Your task to perform on an android device: turn on javascript in the chrome app Image 0: 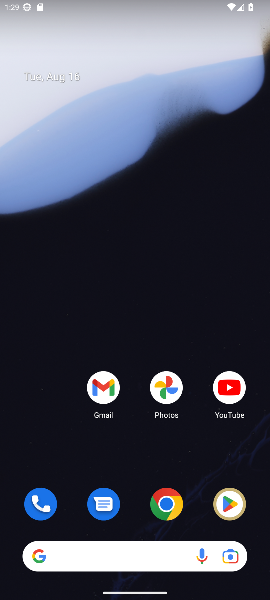
Step 0: click (169, 498)
Your task to perform on an android device: turn on javascript in the chrome app Image 1: 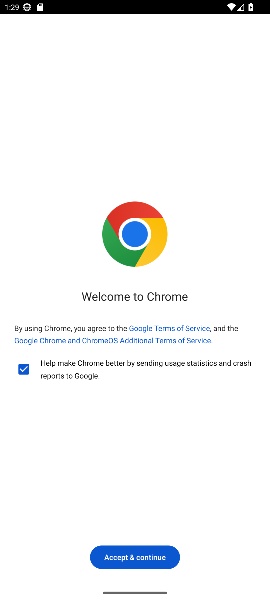
Step 1: click (133, 556)
Your task to perform on an android device: turn on javascript in the chrome app Image 2: 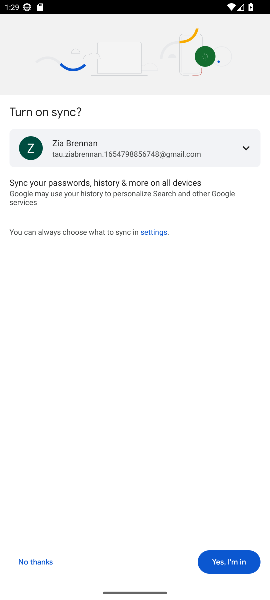
Step 2: click (232, 566)
Your task to perform on an android device: turn on javascript in the chrome app Image 3: 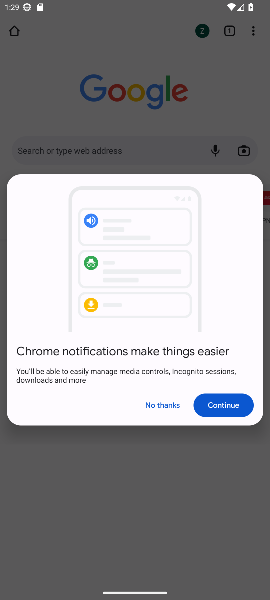
Step 3: click (222, 400)
Your task to perform on an android device: turn on javascript in the chrome app Image 4: 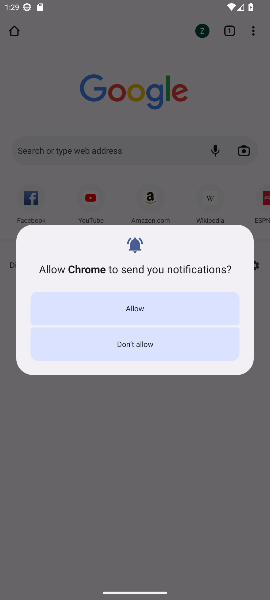
Step 4: click (143, 307)
Your task to perform on an android device: turn on javascript in the chrome app Image 5: 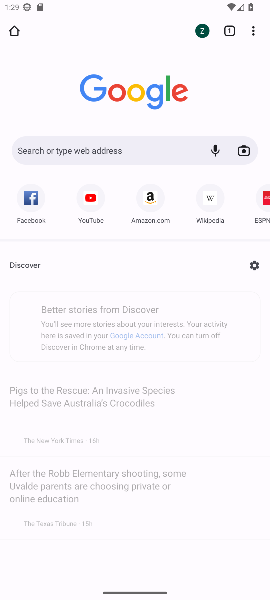
Step 5: click (267, 29)
Your task to perform on an android device: turn on javascript in the chrome app Image 6: 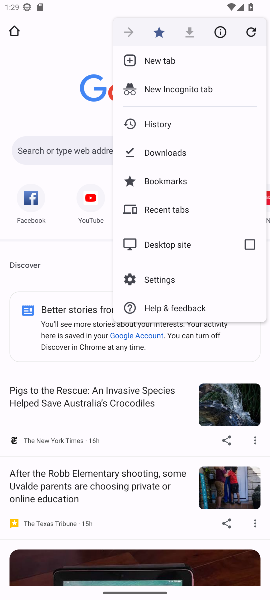
Step 6: click (160, 278)
Your task to perform on an android device: turn on javascript in the chrome app Image 7: 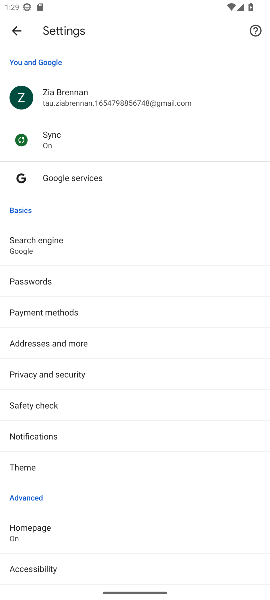
Step 7: drag from (155, 514) to (155, 287)
Your task to perform on an android device: turn on javascript in the chrome app Image 8: 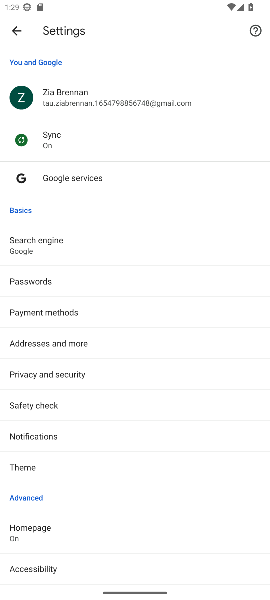
Step 8: drag from (128, 539) to (134, 323)
Your task to perform on an android device: turn on javascript in the chrome app Image 9: 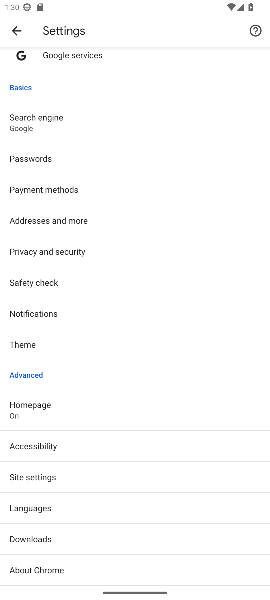
Step 9: click (37, 477)
Your task to perform on an android device: turn on javascript in the chrome app Image 10: 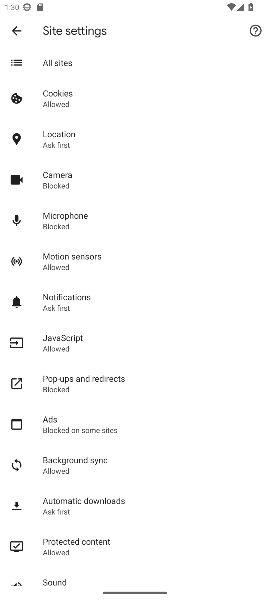
Step 10: click (53, 333)
Your task to perform on an android device: turn on javascript in the chrome app Image 11: 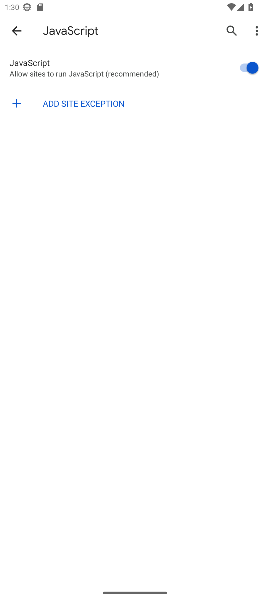
Step 11: task complete